Your task to perform on an android device: Go to Amazon Image 0: 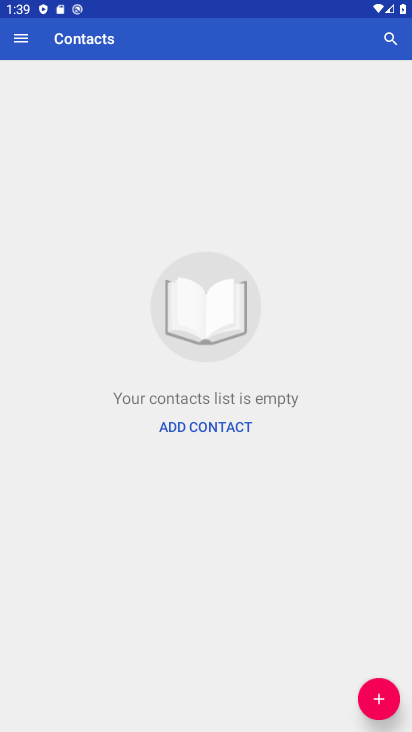
Step 0: press home button
Your task to perform on an android device: Go to Amazon Image 1: 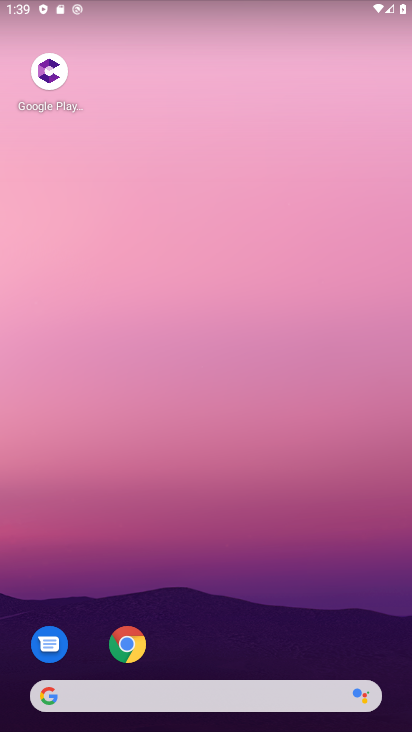
Step 1: click (131, 640)
Your task to perform on an android device: Go to Amazon Image 2: 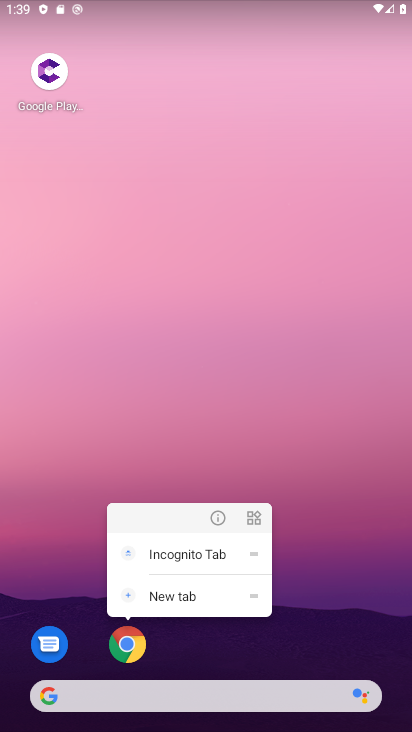
Step 2: click (128, 646)
Your task to perform on an android device: Go to Amazon Image 3: 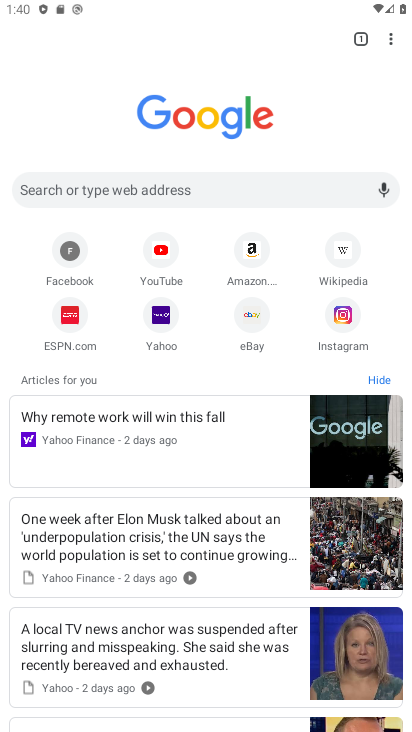
Step 3: click (257, 252)
Your task to perform on an android device: Go to Amazon Image 4: 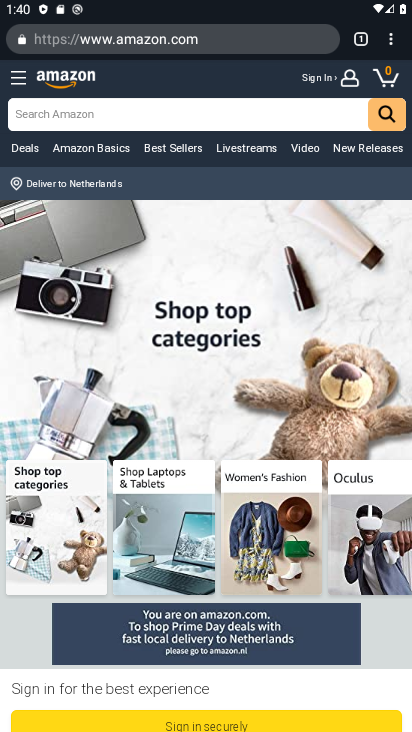
Step 4: task complete